Your task to perform on an android device: Show me the alarms in the clock app Image 0: 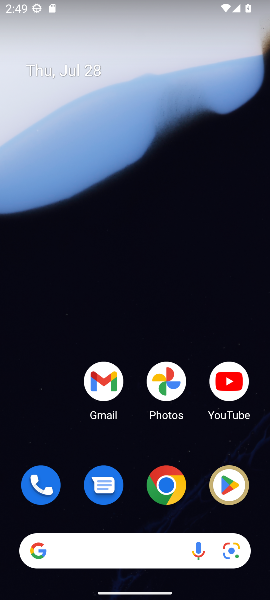
Step 0: drag from (39, 417) to (64, 103)
Your task to perform on an android device: Show me the alarms in the clock app Image 1: 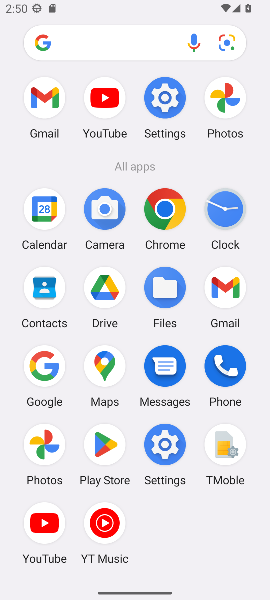
Step 1: click (227, 202)
Your task to perform on an android device: Show me the alarms in the clock app Image 2: 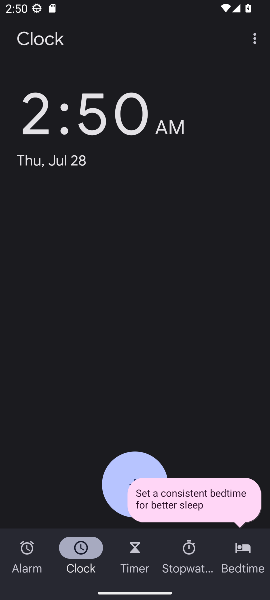
Step 2: click (22, 561)
Your task to perform on an android device: Show me the alarms in the clock app Image 3: 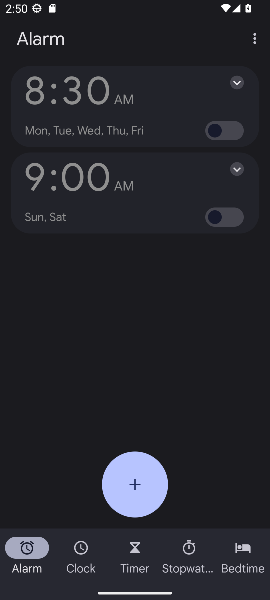
Step 3: task complete